Your task to perform on an android device: turn off priority inbox in the gmail app Image 0: 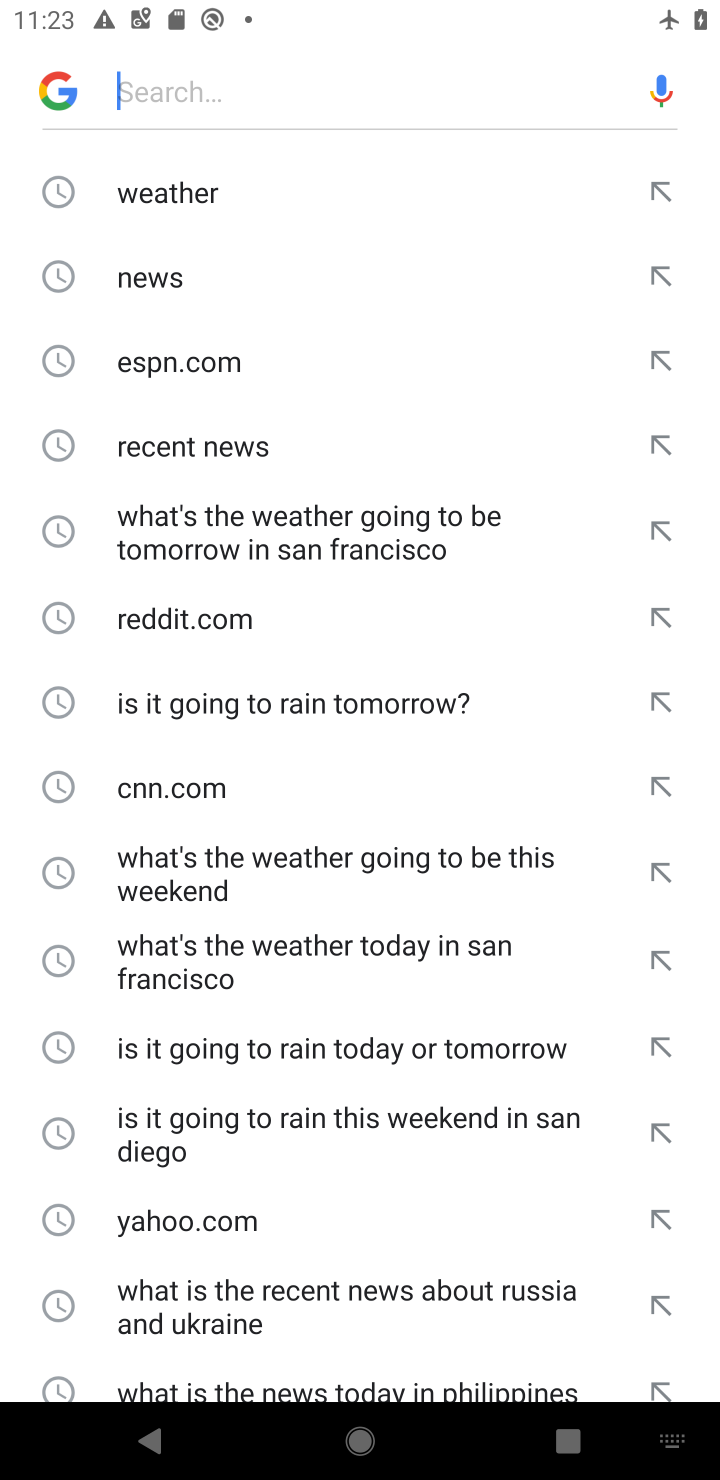
Step 0: press home button
Your task to perform on an android device: turn off priority inbox in the gmail app Image 1: 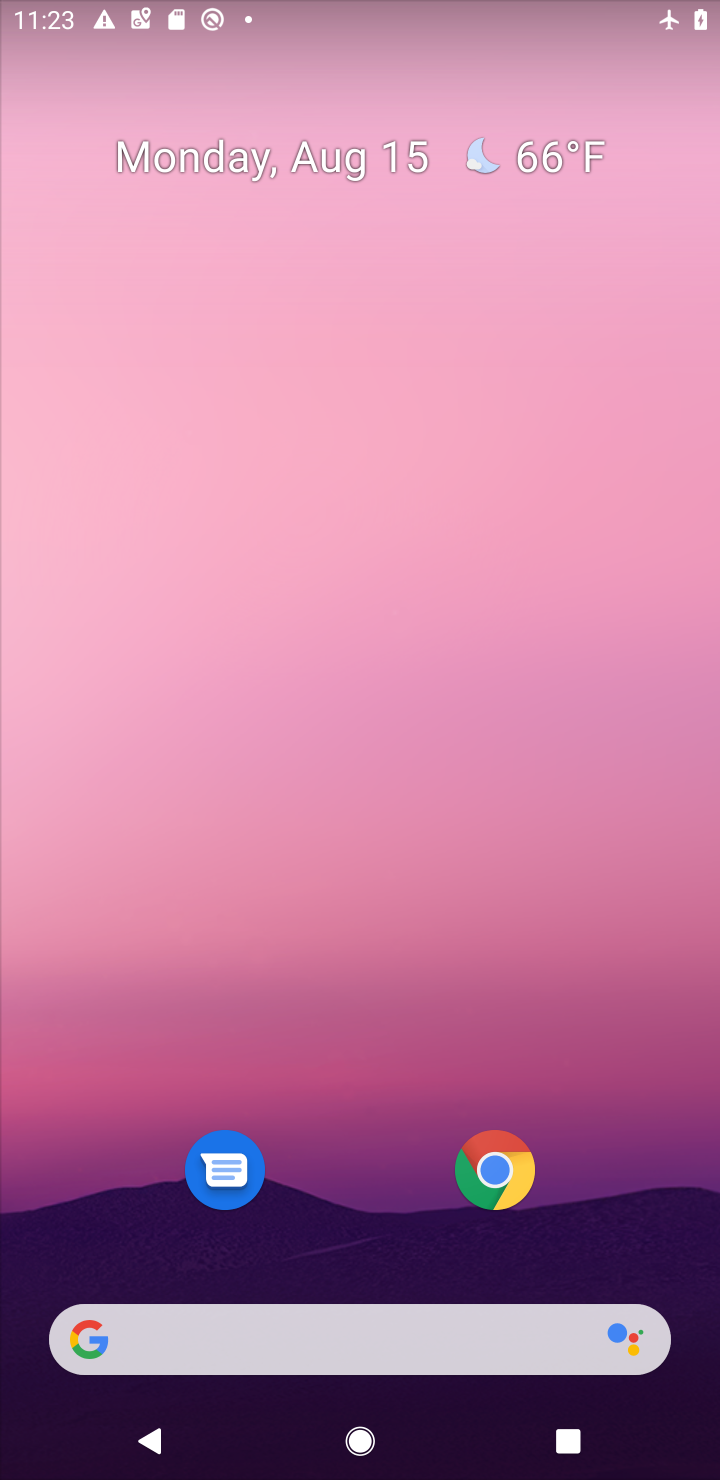
Step 1: drag from (353, 1282) to (359, 0)
Your task to perform on an android device: turn off priority inbox in the gmail app Image 2: 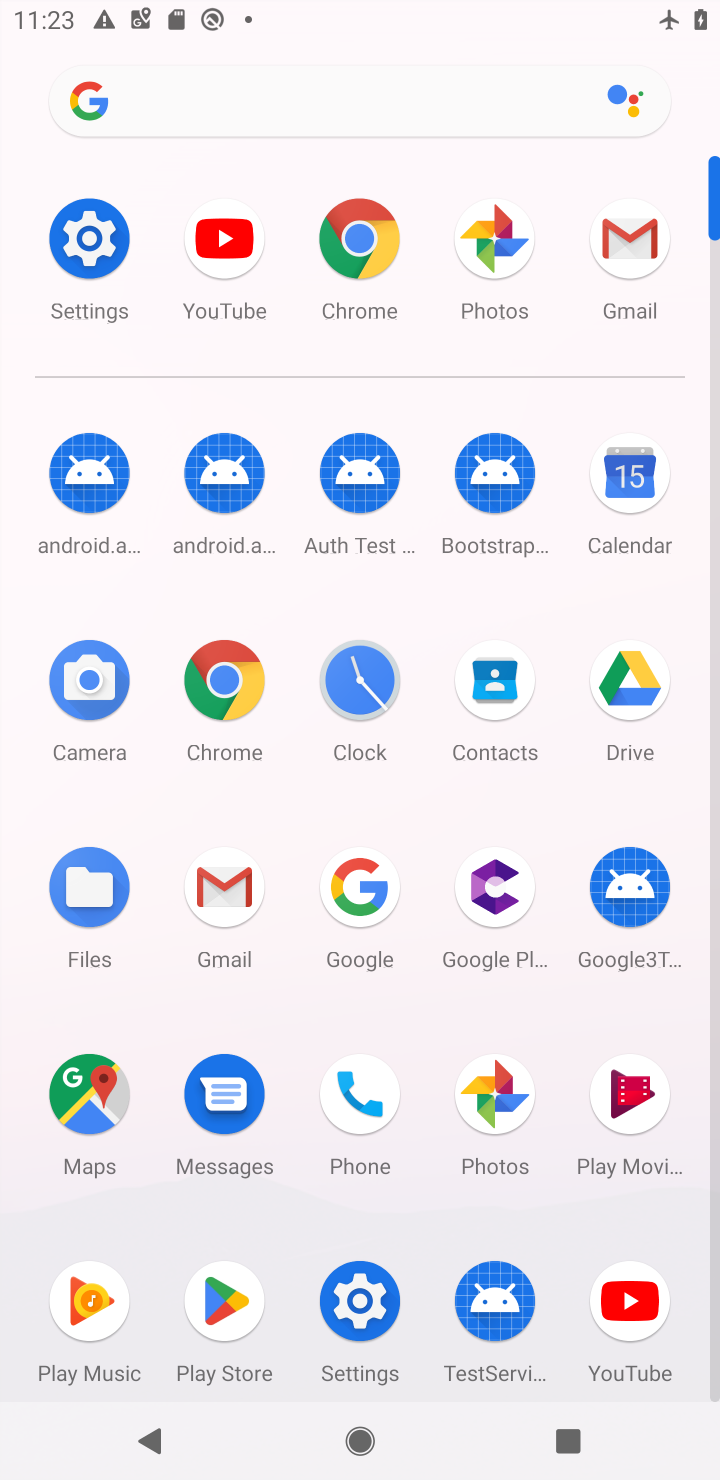
Step 2: click (622, 225)
Your task to perform on an android device: turn off priority inbox in the gmail app Image 3: 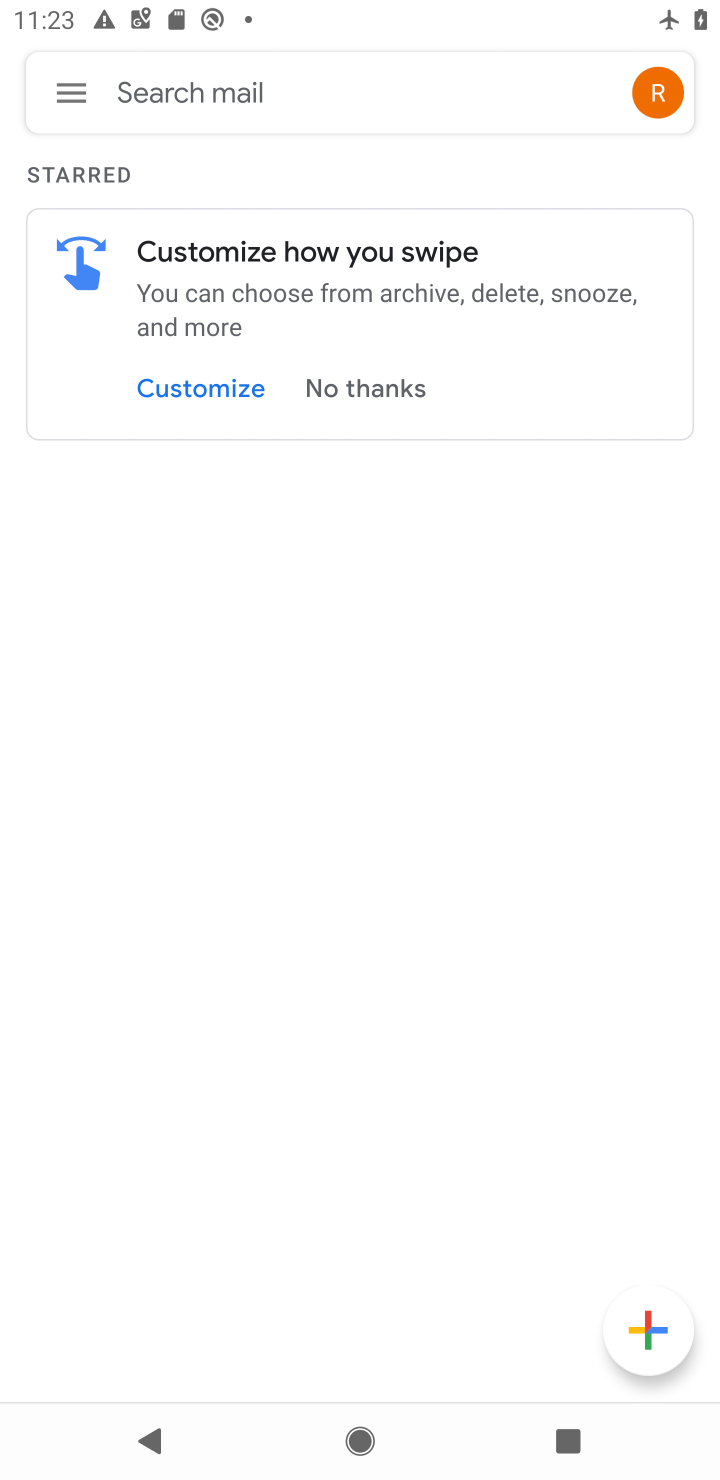
Step 3: click (79, 79)
Your task to perform on an android device: turn off priority inbox in the gmail app Image 4: 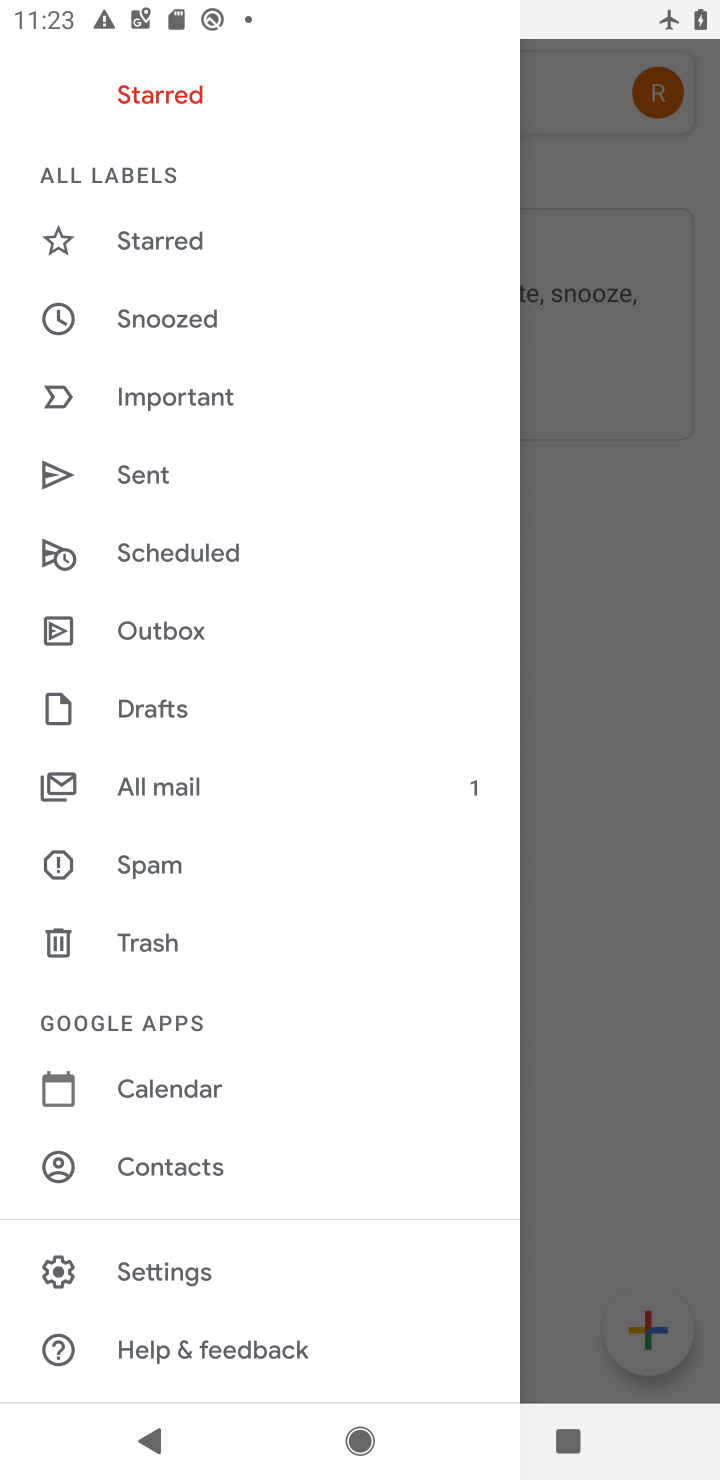
Step 4: click (210, 1265)
Your task to perform on an android device: turn off priority inbox in the gmail app Image 5: 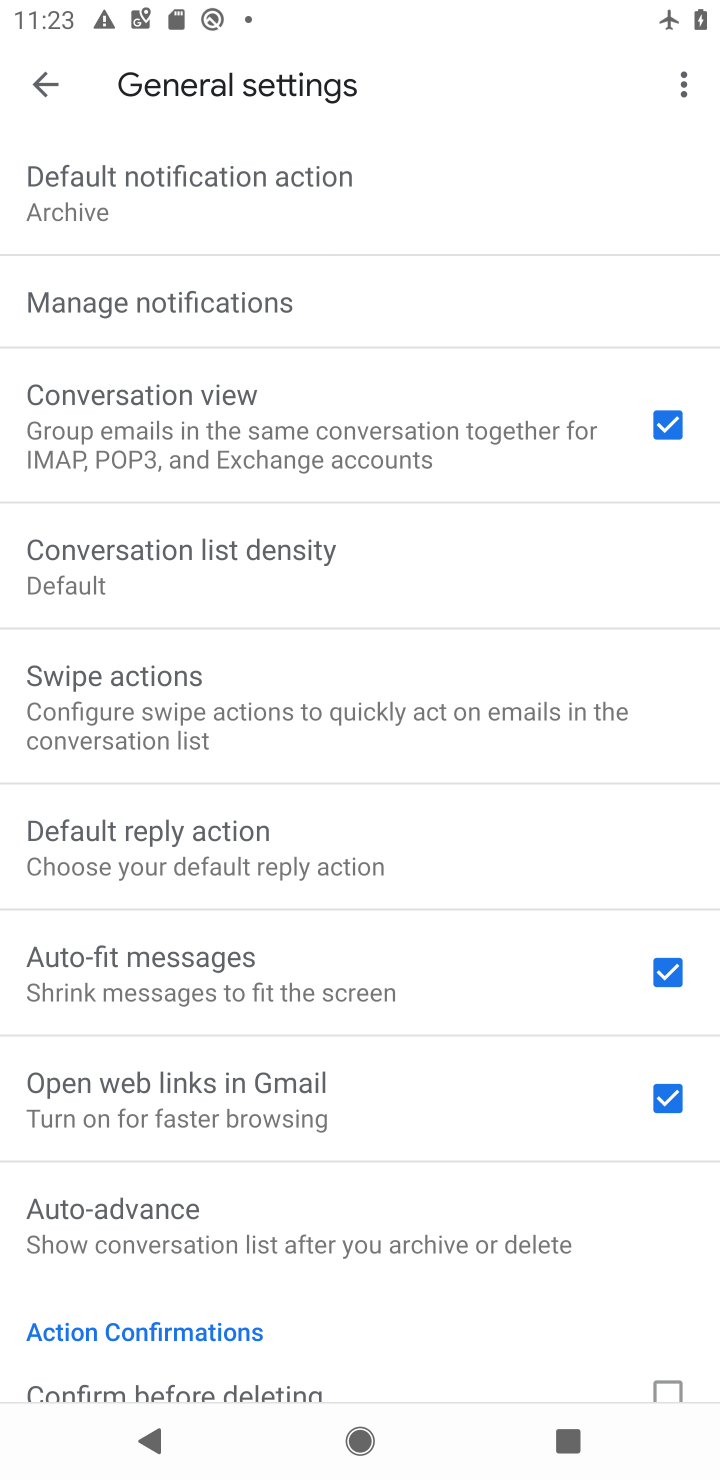
Step 5: click (52, 77)
Your task to perform on an android device: turn off priority inbox in the gmail app Image 6: 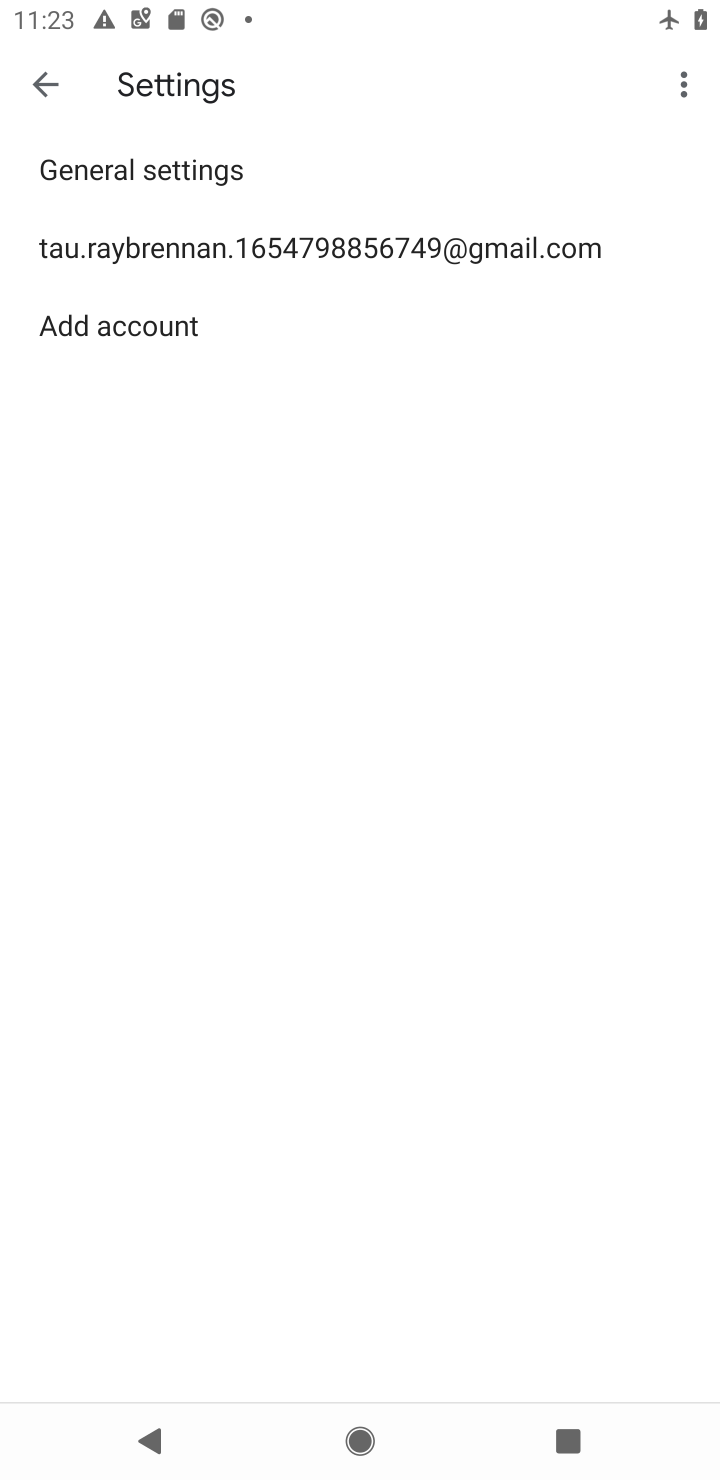
Step 6: click (235, 241)
Your task to perform on an android device: turn off priority inbox in the gmail app Image 7: 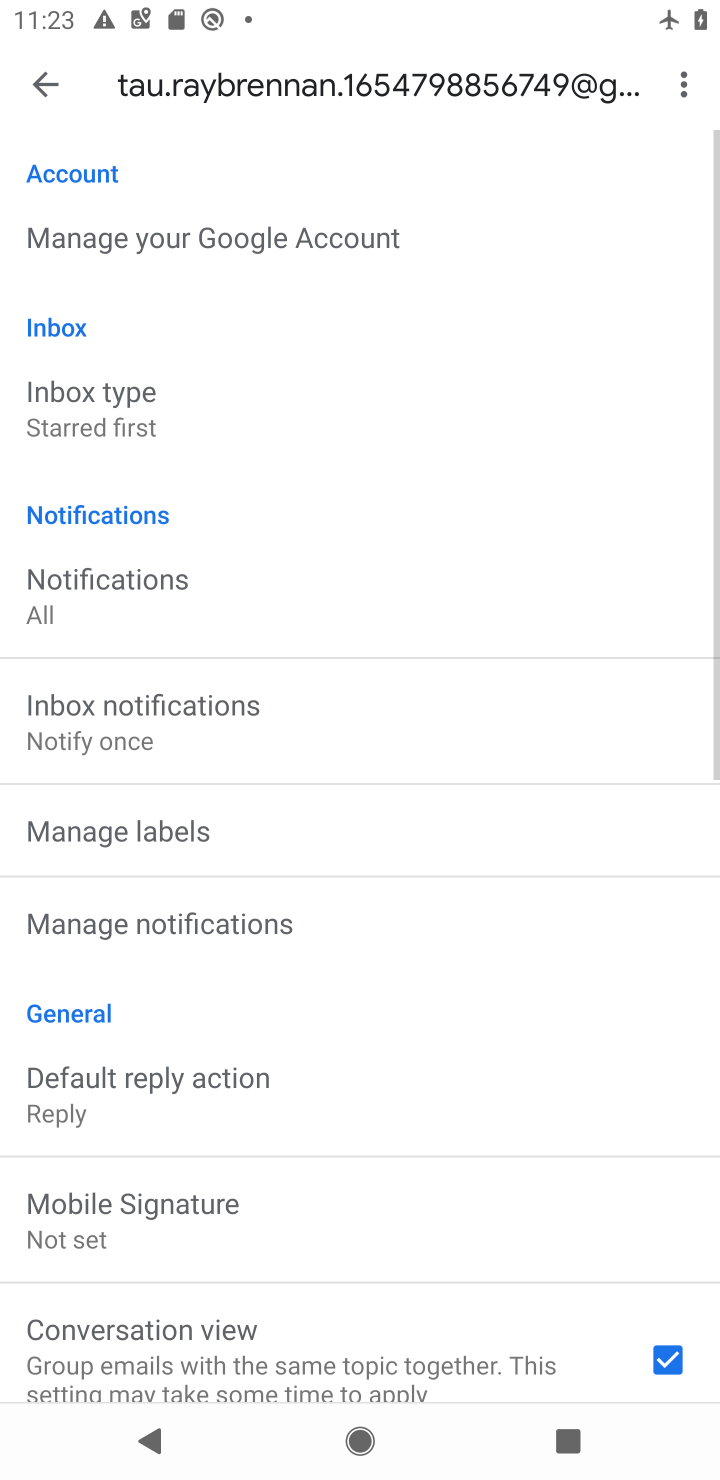
Step 7: click (207, 404)
Your task to perform on an android device: turn off priority inbox in the gmail app Image 8: 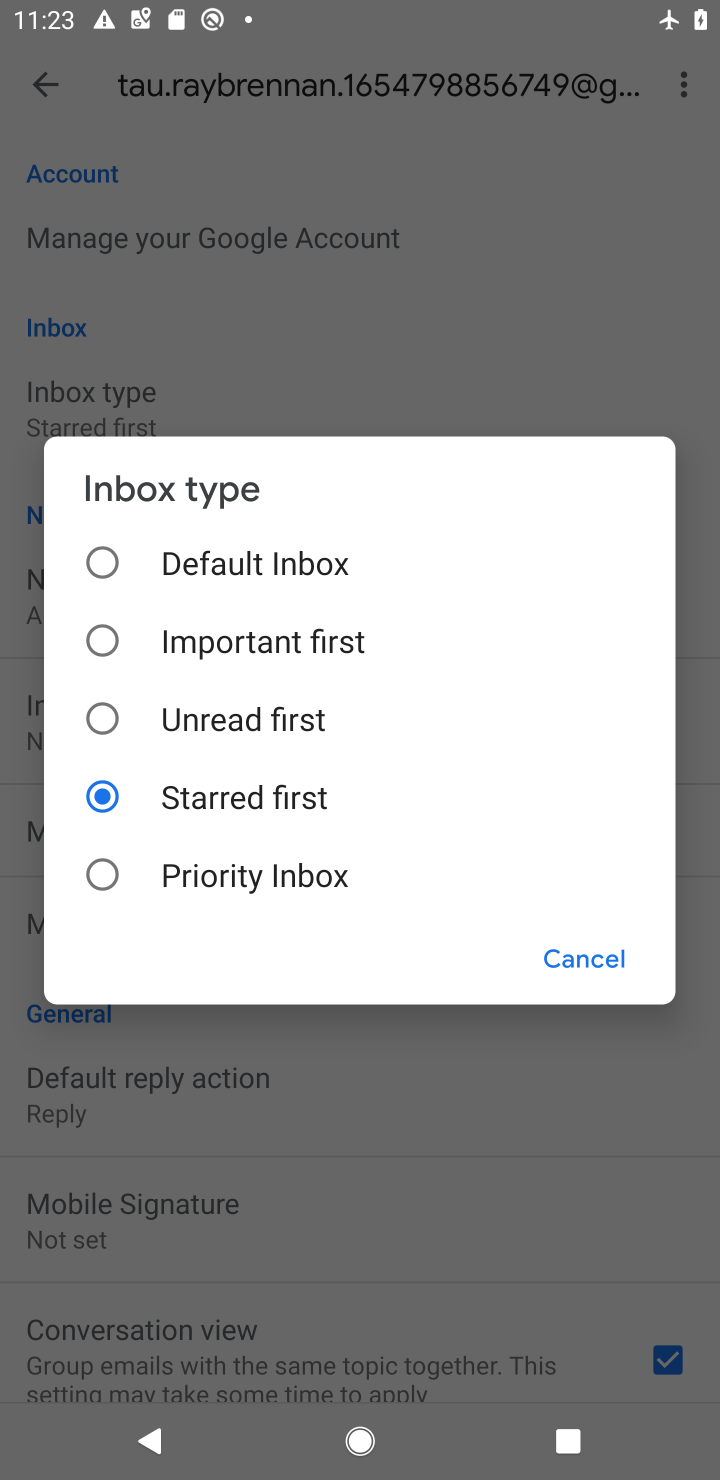
Step 8: task complete